Your task to perform on an android device: Go to Maps Image 0: 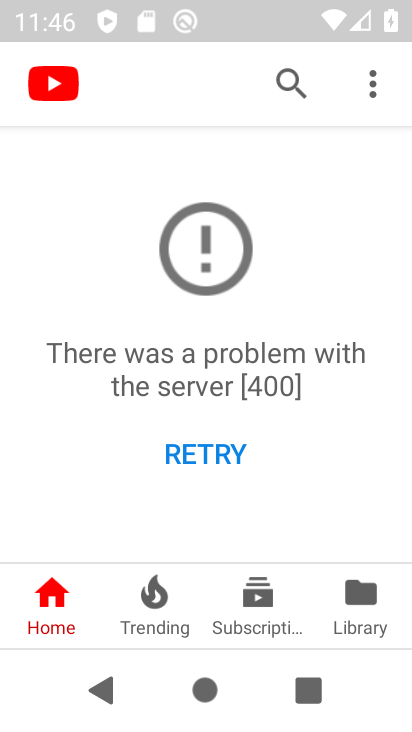
Step 0: press home button
Your task to perform on an android device: Go to Maps Image 1: 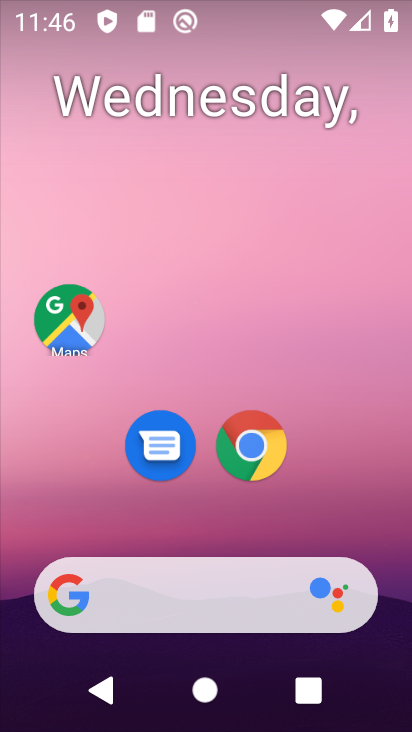
Step 1: click (75, 312)
Your task to perform on an android device: Go to Maps Image 2: 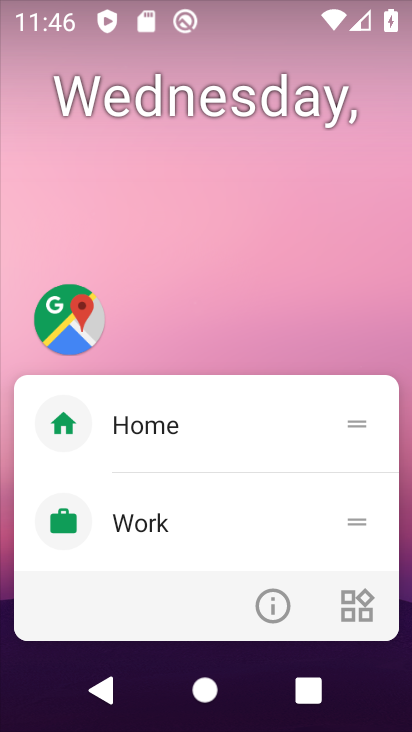
Step 2: click (73, 311)
Your task to perform on an android device: Go to Maps Image 3: 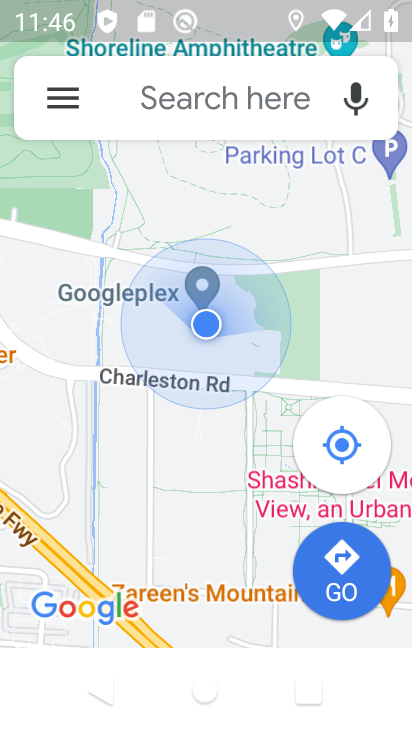
Step 3: task complete